Your task to perform on an android device: turn off airplane mode Image 0: 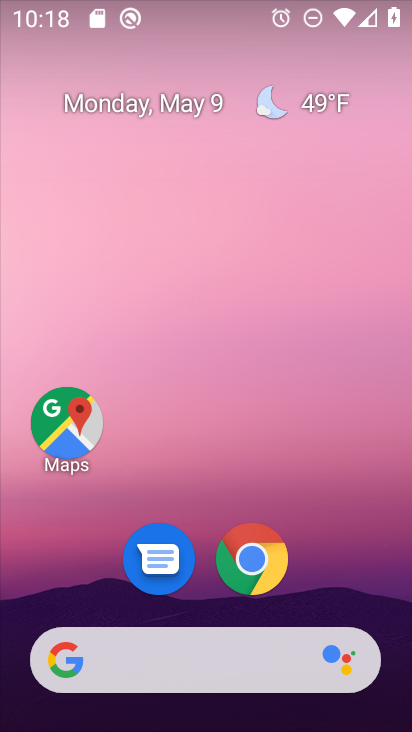
Step 0: drag from (209, 723) to (209, 573)
Your task to perform on an android device: turn off airplane mode Image 1: 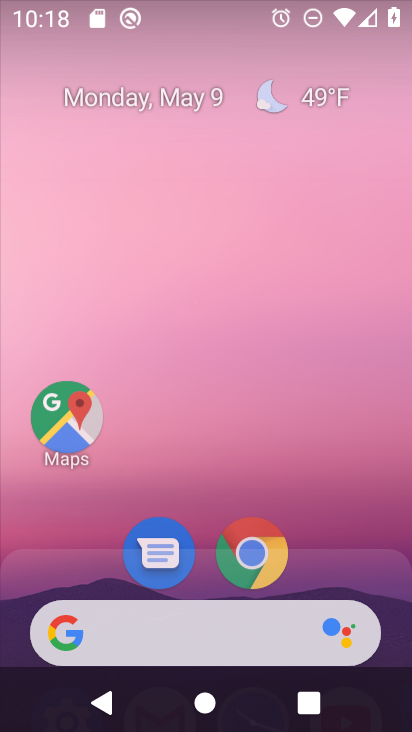
Step 1: click (205, 305)
Your task to perform on an android device: turn off airplane mode Image 2: 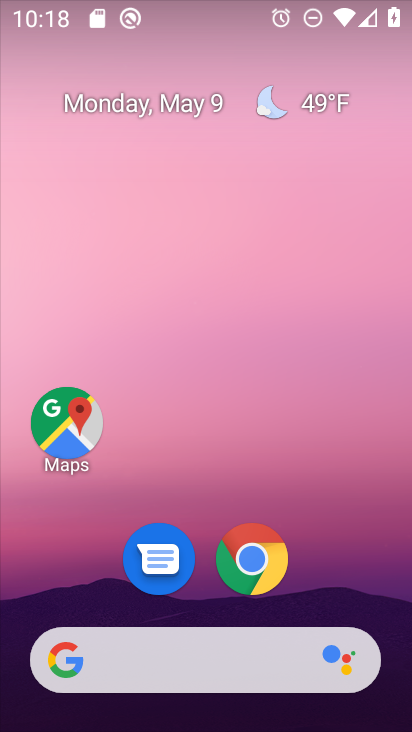
Step 2: drag from (204, 724) to (208, 209)
Your task to perform on an android device: turn off airplane mode Image 3: 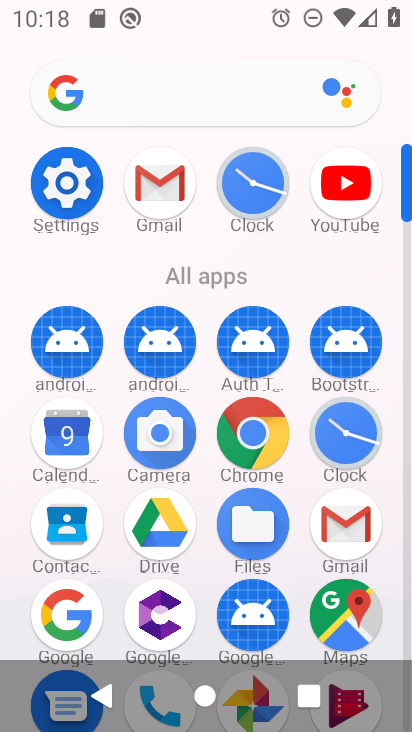
Step 3: click (54, 175)
Your task to perform on an android device: turn off airplane mode Image 4: 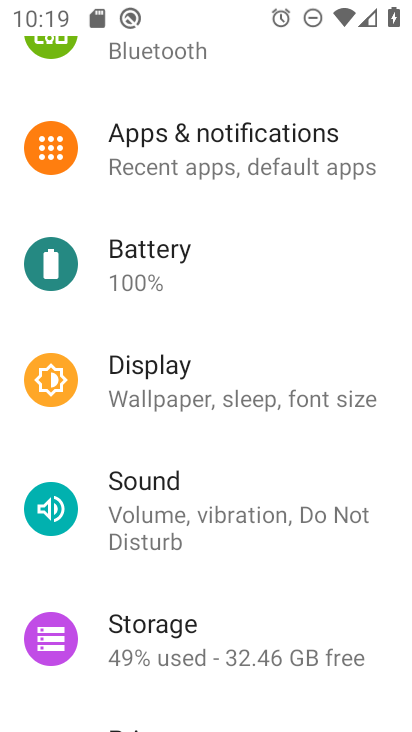
Step 4: drag from (229, 120) to (224, 483)
Your task to perform on an android device: turn off airplane mode Image 5: 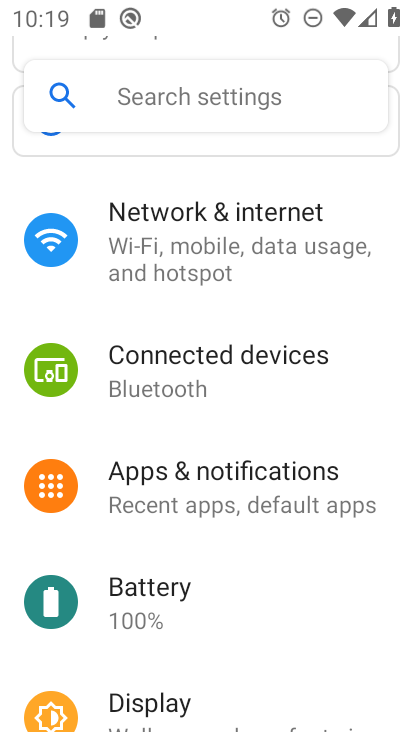
Step 5: click (177, 261)
Your task to perform on an android device: turn off airplane mode Image 6: 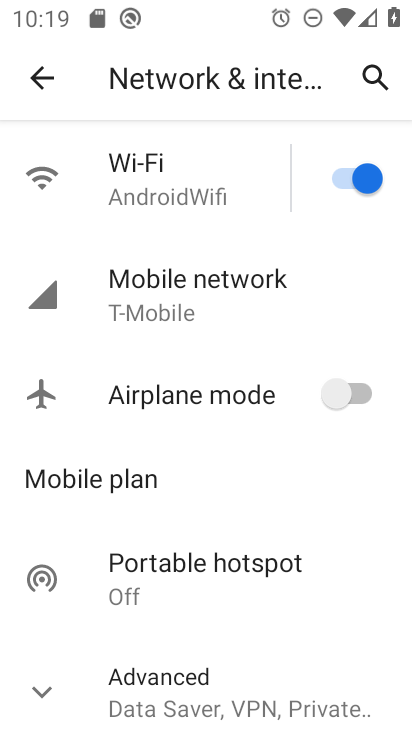
Step 6: task complete